Your task to perform on an android device: turn off picture-in-picture Image 0: 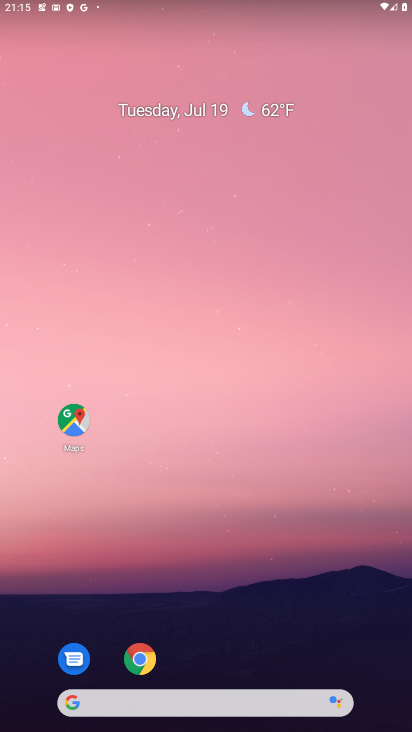
Step 0: press home button
Your task to perform on an android device: turn off picture-in-picture Image 1: 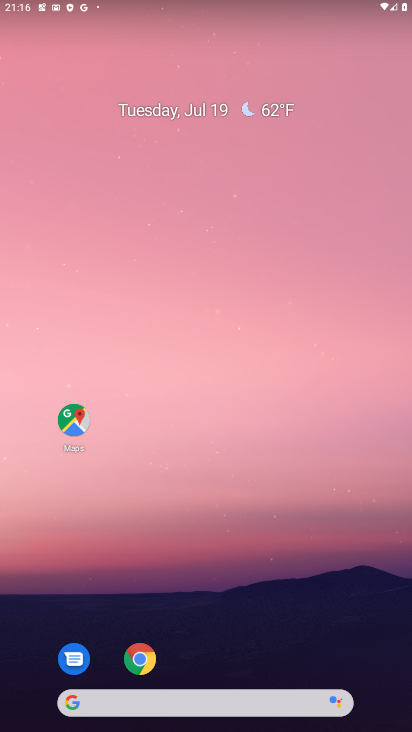
Step 1: click (140, 671)
Your task to perform on an android device: turn off picture-in-picture Image 2: 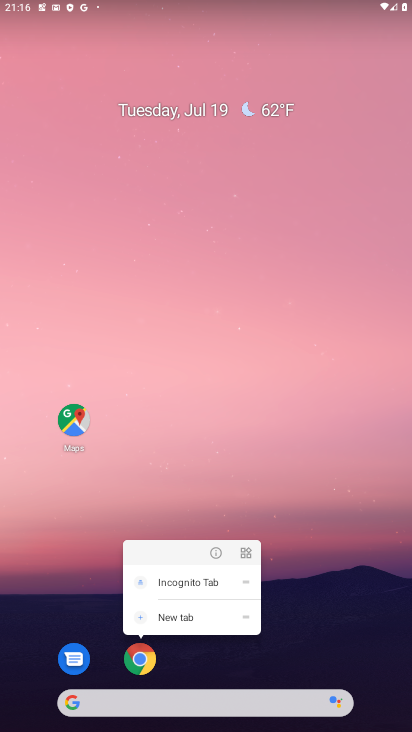
Step 2: click (218, 552)
Your task to perform on an android device: turn off picture-in-picture Image 3: 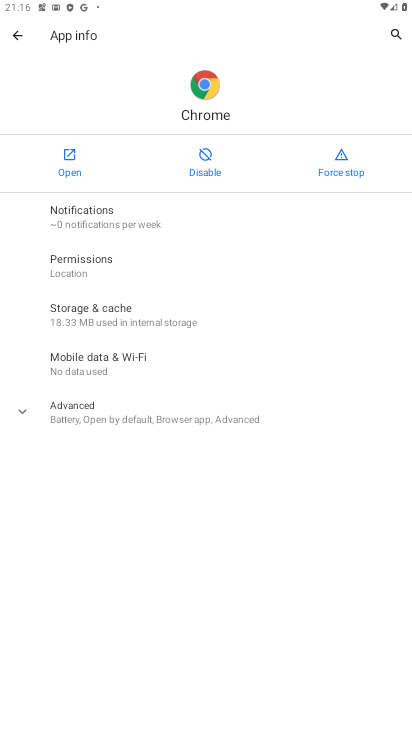
Step 3: click (139, 414)
Your task to perform on an android device: turn off picture-in-picture Image 4: 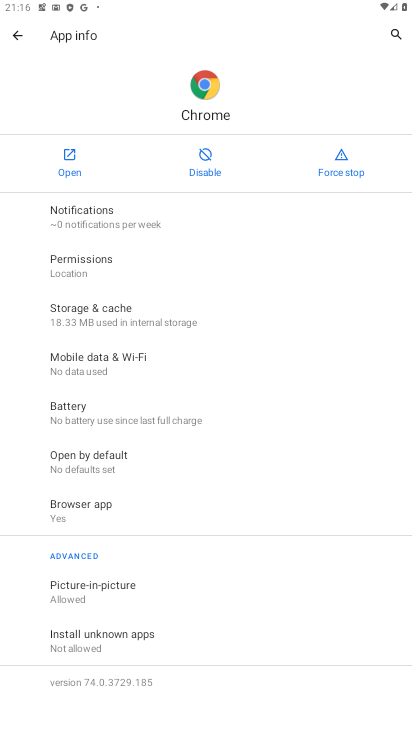
Step 4: click (91, 593)
Your task to perform on an android device: turn off picture-in-picture Image 5: 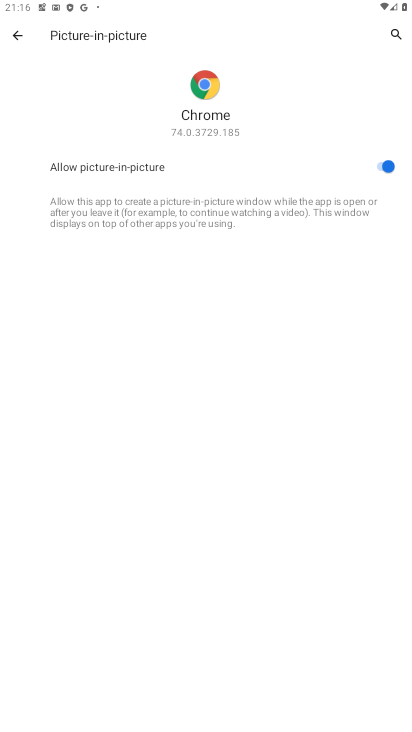
Step 5: click (369, 160)
Your task to perform on an android device: turn off picture-in-picture Image 6: 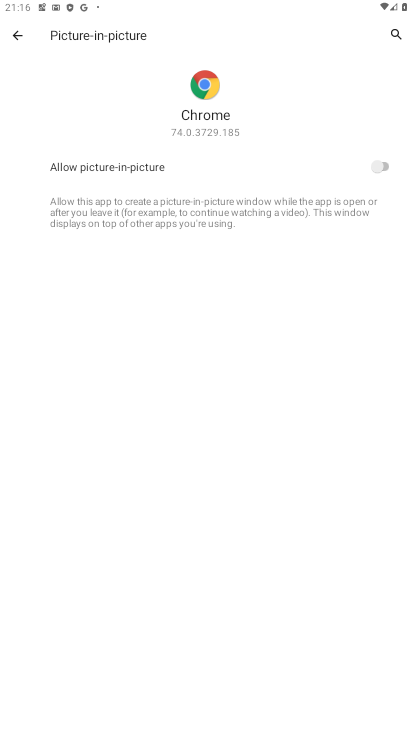
Step 6: task complete